Your task to perform on an android device: turn on airplane mode Image 0: 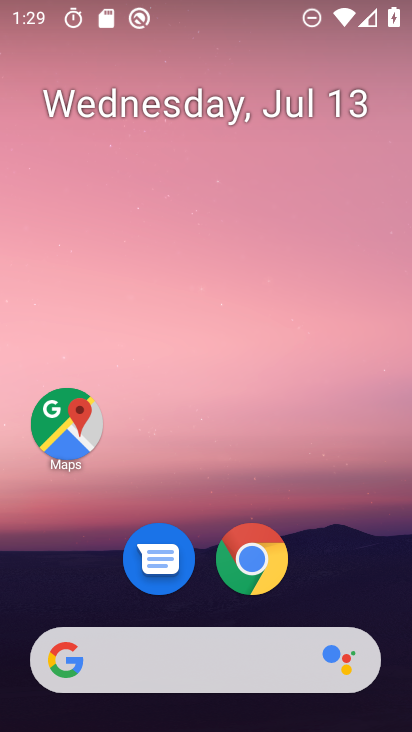
Step 0: drag from (233, 655) to (250, 154)
Your task to perform on an android device: turn on airplane mode Image 1: 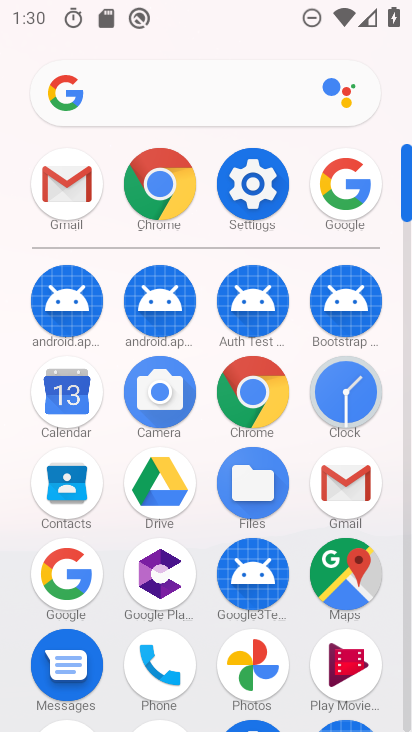
Step 1: click (244, 180)
Your task to perform on an android device: turn on airplane mode Image 2: 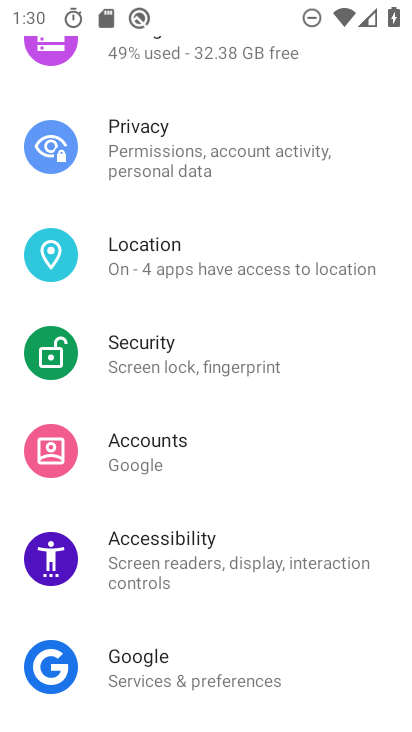
Step 2: drag from (222, 351) to (151, 647)
Your task to perform on an android device: turn on airplane mode Image 3: 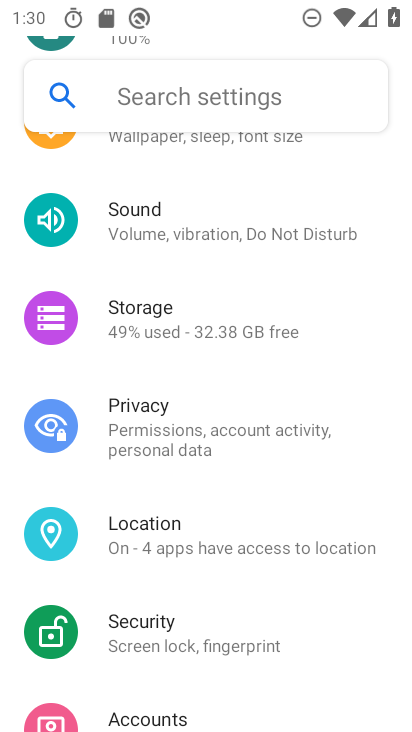
Step 3: drag from (208, 329) to (178, 655)
Your task to perform on an android device: turn on airplane mode Image 4: 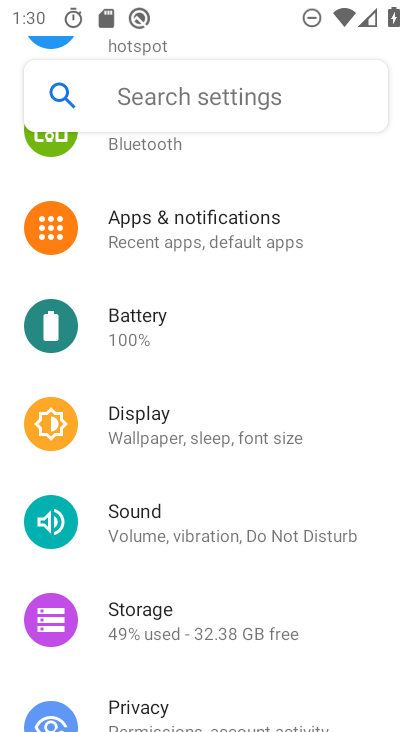
Step 4: drag from (212, 316) to (216, 643)
Your task to perform on an android device: turn on airplane mode Image 5: 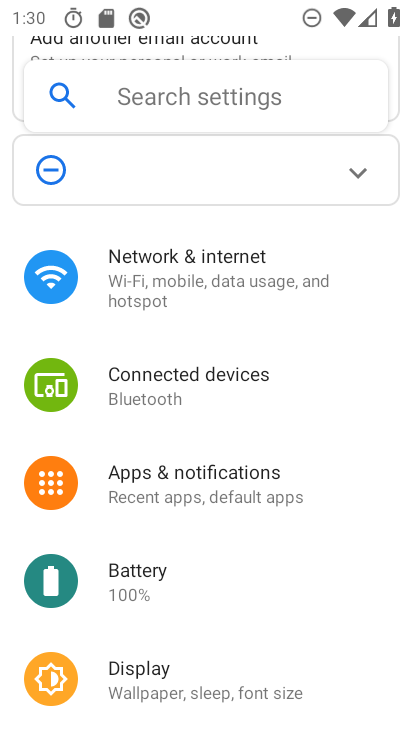
Step 5: click (242, 297)
Your task to perform on an android device: turn on airplane mode Image 6: 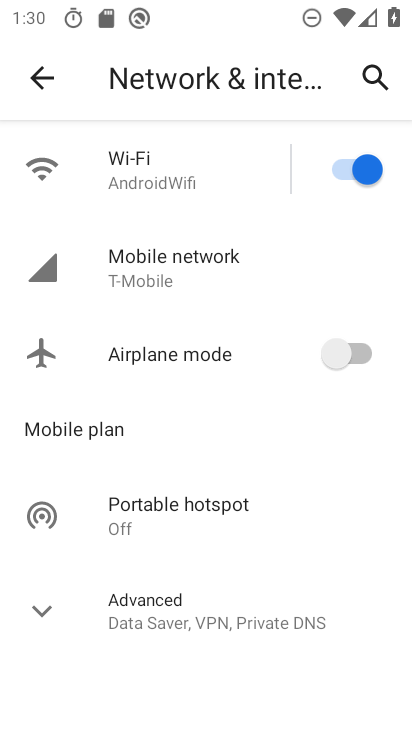
Step 6: click (260, 358)
Your task to perform on an android device: turn on airplane mode Image 7: 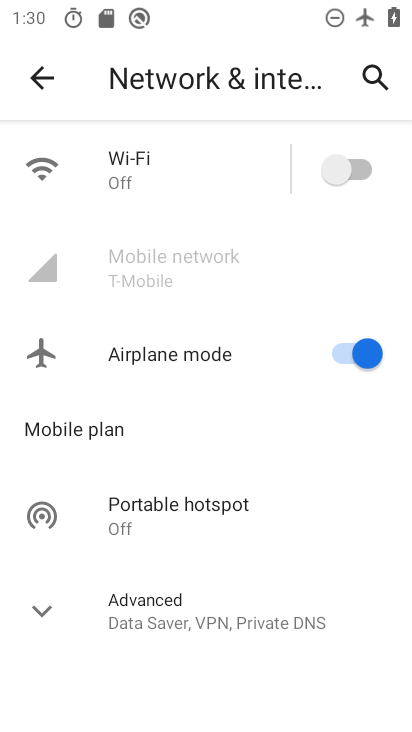
Step 7: task complete